Your task to perform on an android device: Search for seafood restaurants on Google Maps Image 0: 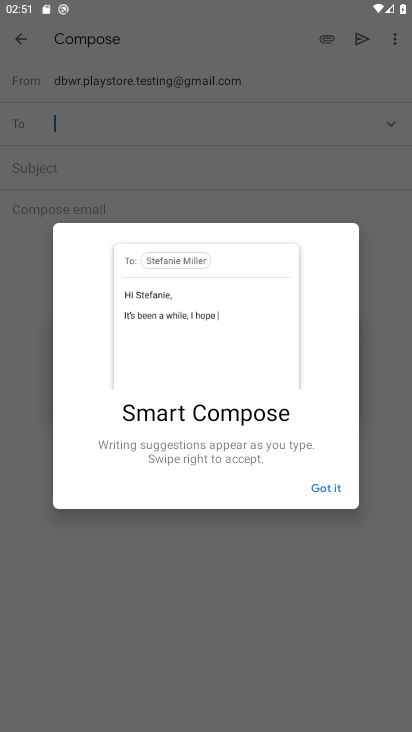
Step 0: press back button
Your task to perform on an android device: Search for seafood restaurants on Google Maps Image 1: 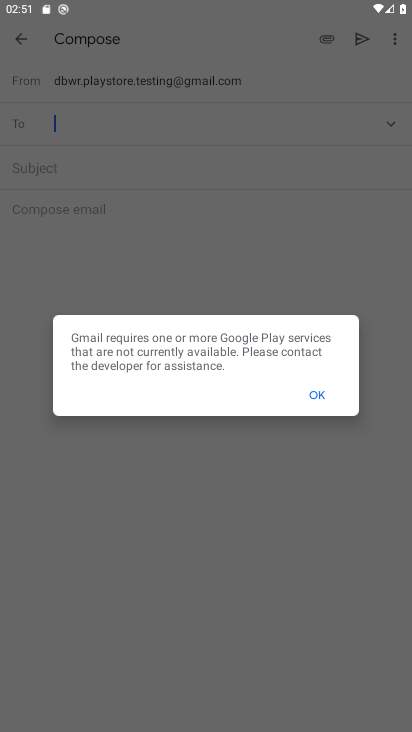
Step 1: press home button
Your task to perform on an android device: Search for seafood restaurants on Google Maps Image 2: 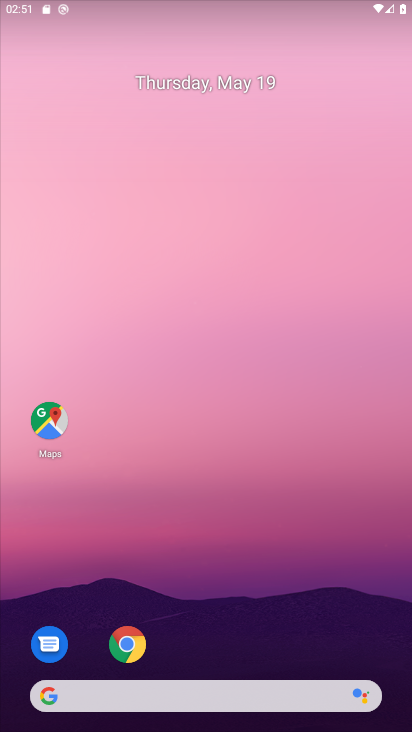
Step 2: drag from (289, 563) to (309, 182)
Your task to perform on an android device: Search for seafood restaurants on Google Maps Image 3: 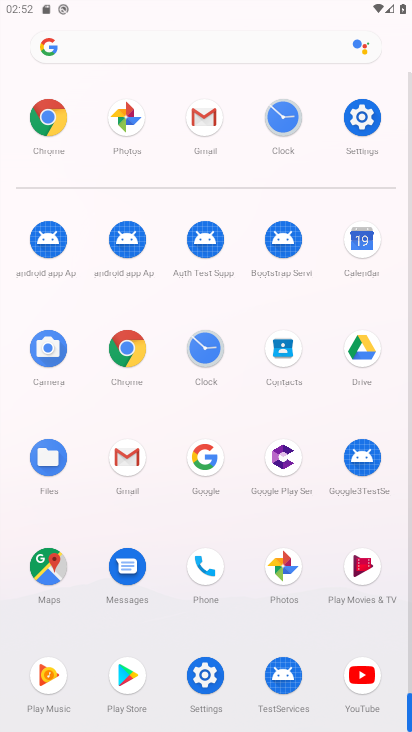
Step 3: click (45, 565)
Your task to perform on an android device: Search for seafood restaurants on Google Maps Image 4: 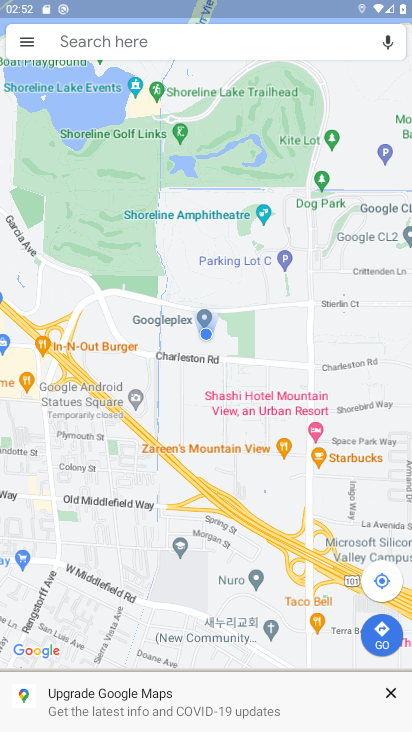
Step 4: click (121, 31)
Your task to perform on an android device: Search for seafood restaurants on Google Maps Image 5: 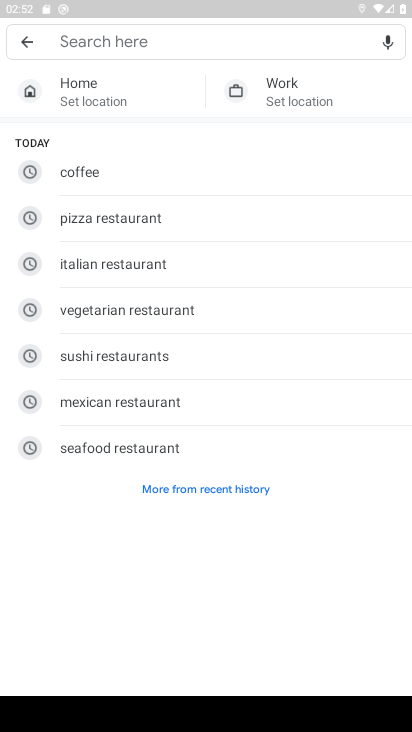
Step 5: type " seafood restaurants "
Your task to perform on an android device: Search for seafood restaurants on Google Maps Image 6: 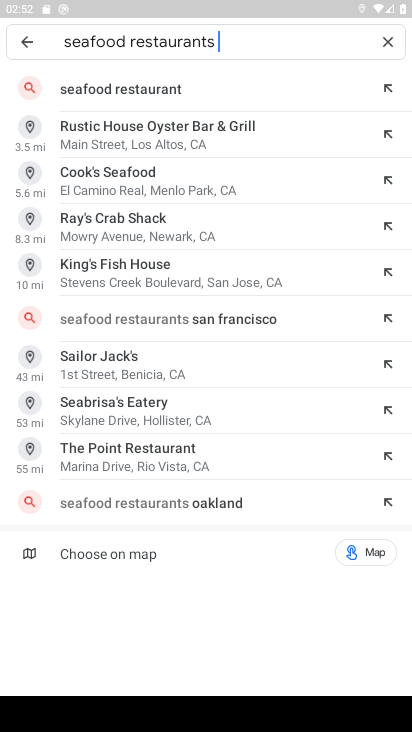
Step 6: click (195, 97)
Your task to perform on an android device: Search for seafood restaurants on Google Maps Image 7: 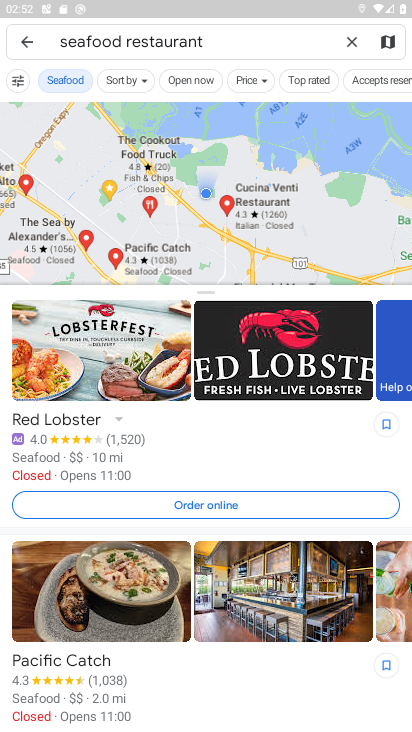
Step 7: task complete